Your task to perform on an android device: Show me the alarms in the clock app Image 0: 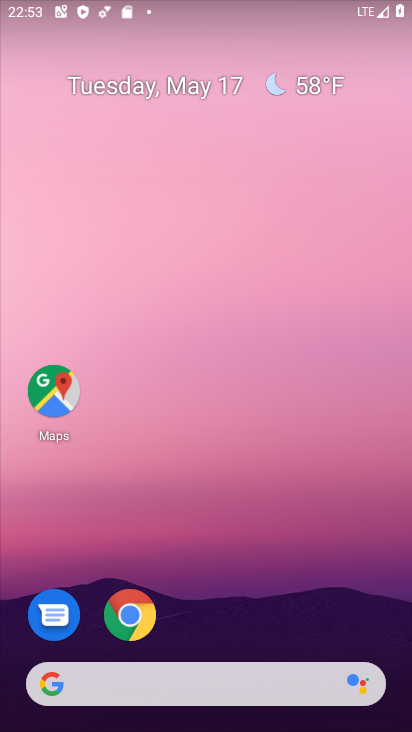
Step 0: drag from (183, 634) to (236, 244)
Your task to perform on an android device: Show me the alarms in the clock app Image 1: 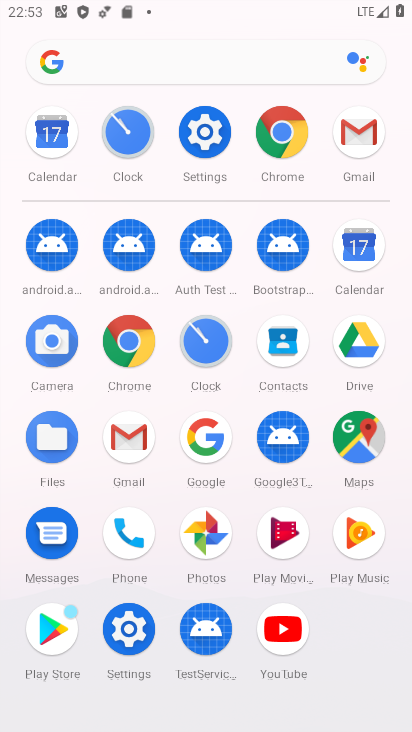
Step 1: click (205, 344)
Your task to perform on an android device: Show me the alarms in the clock app Image 2: 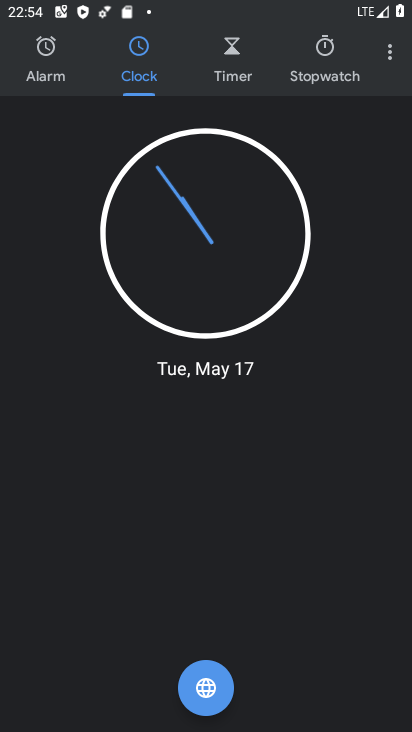
Step 2: click (55, 62)
Your task to perform on an android device: Show me the alarms in the clock app Image 3: 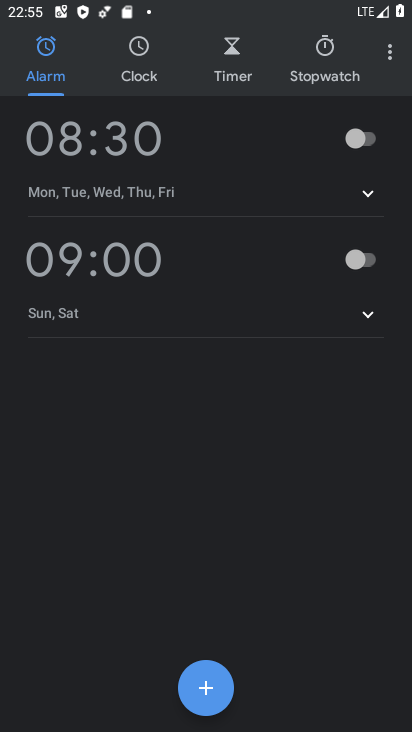
Step 3: task complete